Your task to perform on an android device: turn on data saver in the chrome app Image 0: 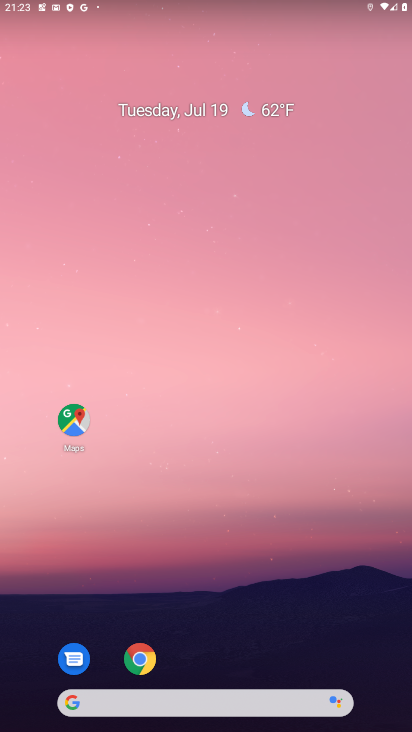
Step 0: press home button
Your task to perform on an android device: turn on data saver in the chrome app Image 1: 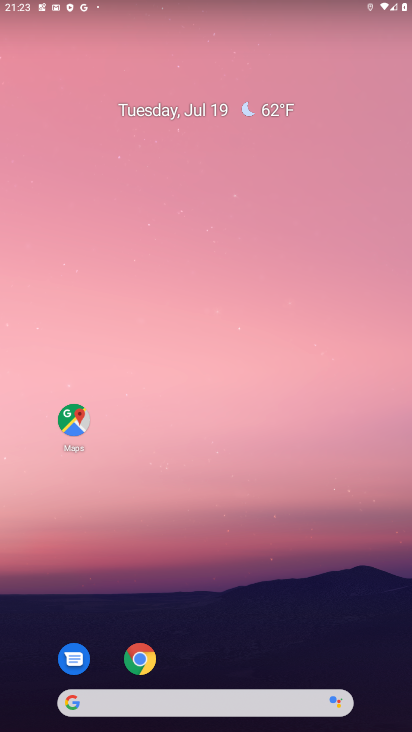
Step 1: click (314, 192)
Your task to perform on an android device: turn on data saver in the chrome app Image 2: 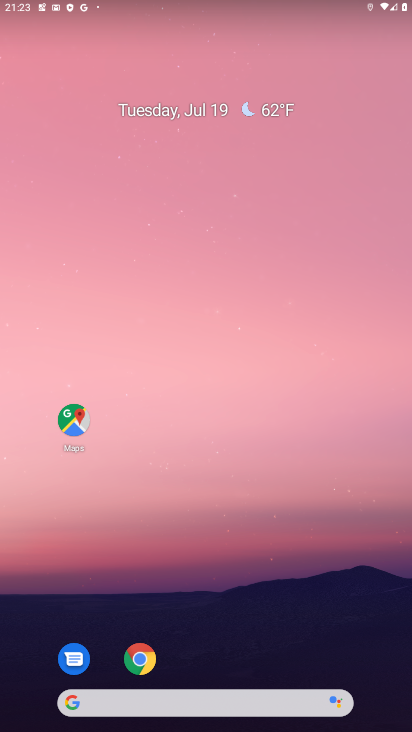
Step 2: drag from (271, 633) to (361, 19)
Your task to perform on an android device: turn on data saver in the chrome app Image 3: 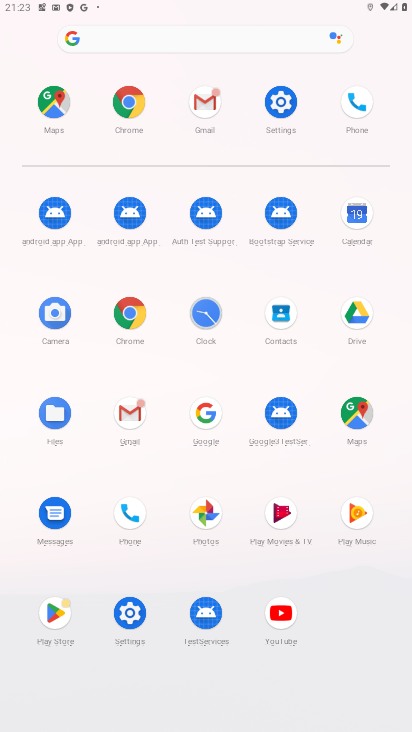
Step 3: click (148, 99)
Your task to perform on an android device: turn on data saver in the chrome app Image 4: 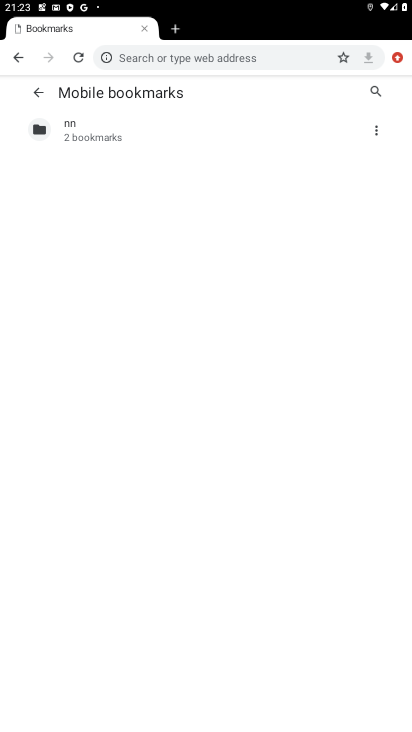
Step 4: drag from (392, 57) to (253, 295)
Your task to perform on an android device: turn on data saver in the chrome app Image 5: 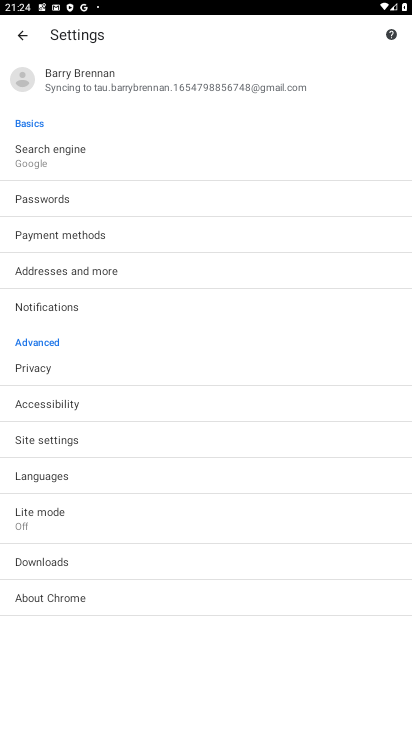
Step 5: click (75, 501)
Your task to perform on an android device: turn on data saver in the chrome app Image 6: 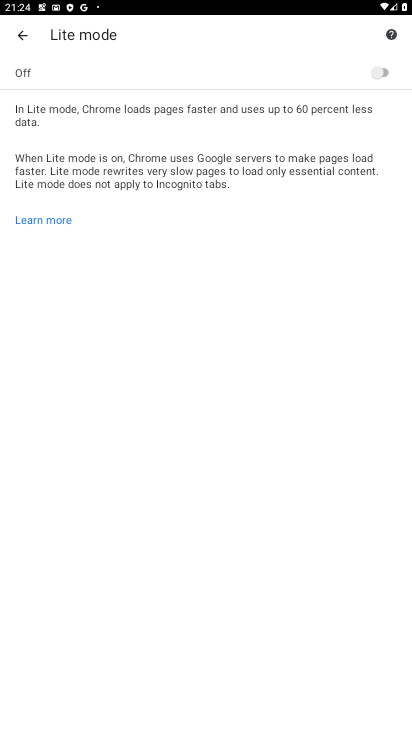
Step 6: click (328, 81)
Your task to perform on an android device: turn on data saver in the chrome app Image 7: 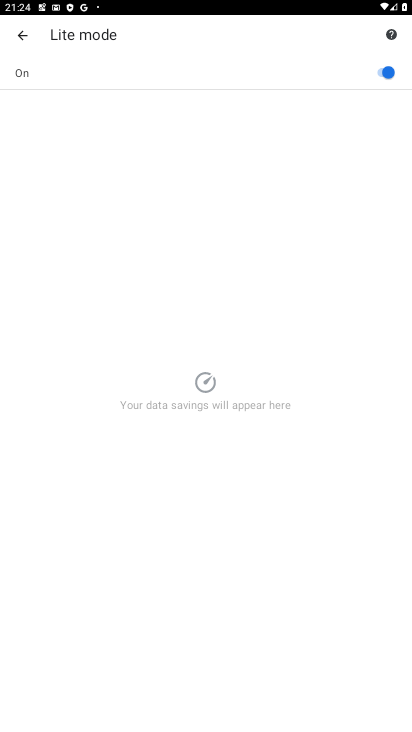
Step 7: task complete